Your task to perform on an android device: Open wifi settings Image 0: 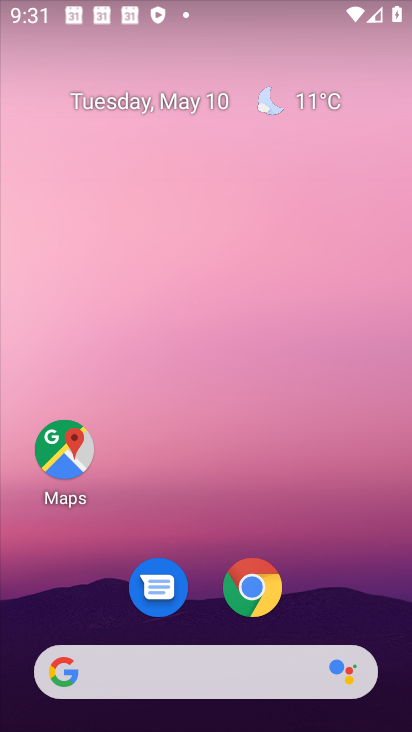
Step 0: drag from (385, 596) to (351, 249)
Your task to perform on an android device: Open wifi settings Image 1: 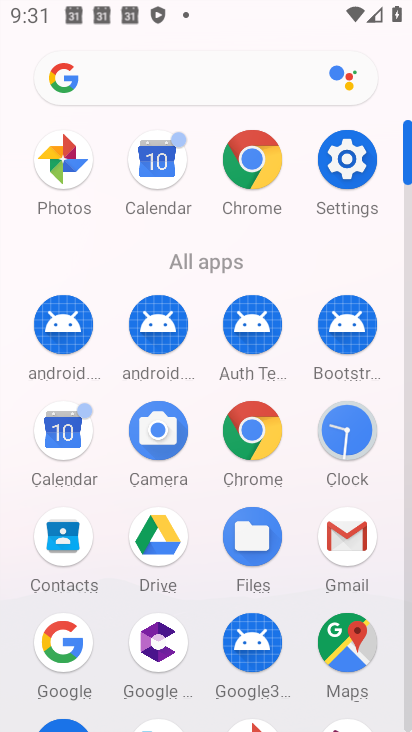
Step 1: click (340, 182)
Your task to perform on an android device: Open wifi settings Image 2: 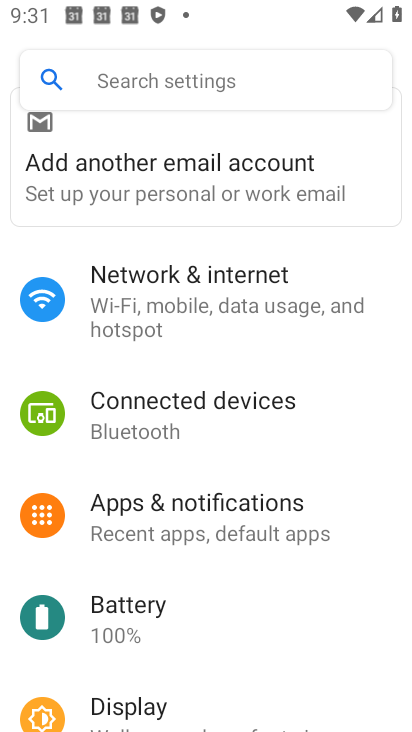
Step 2: click (191, 169)
Your task to perform on an android device: Open wifi settings Image 3: 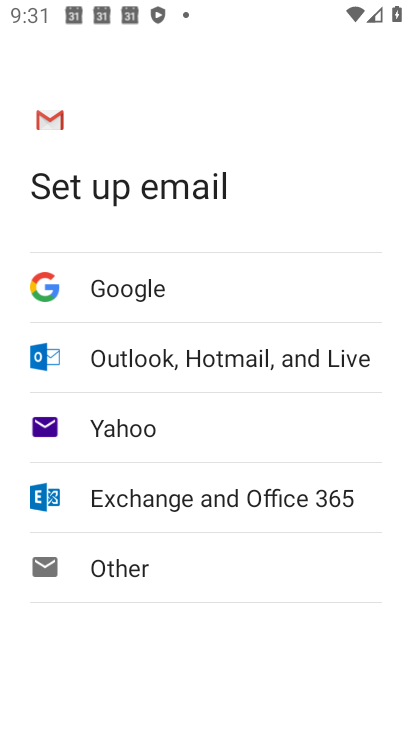
Step 3: press back button
Your task to perform on an android device: Open wifi settings Image 4: 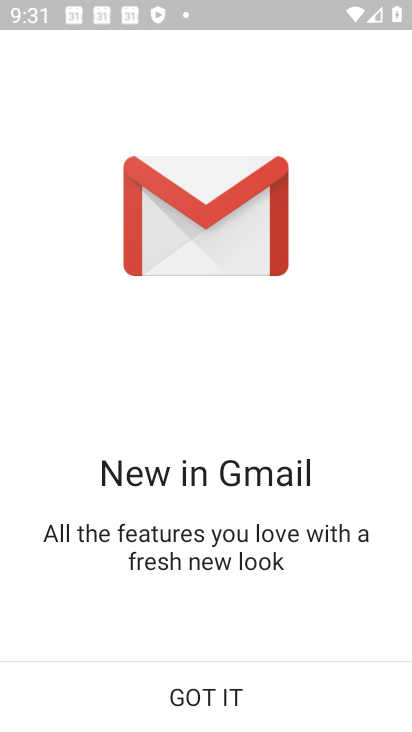
Step 4: click (230, 689)
Your task to perform on an android device: Open wifi settings Image 5: 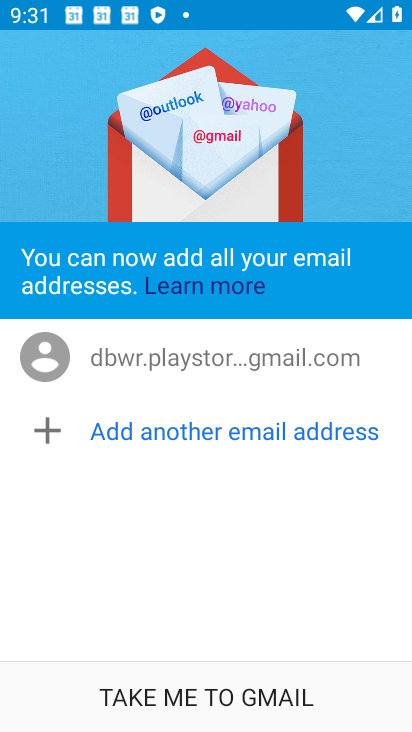
Step 5: click (262, 715)
Your task to perform on an android device: Open wifi settings Image 6: 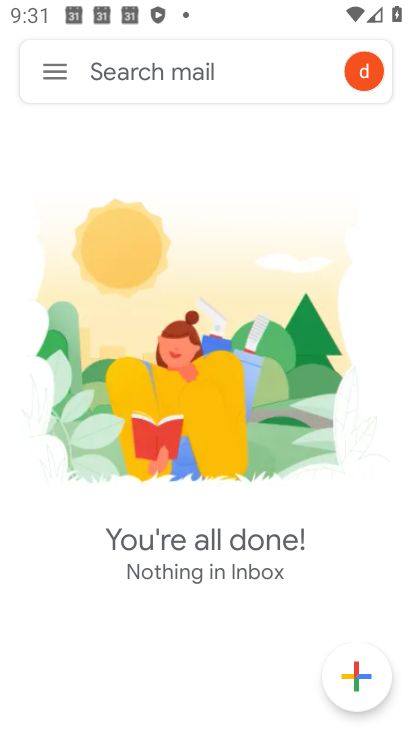
Step 6: press home button
Your task to perform on an android device: Open wifi settings Image 7: 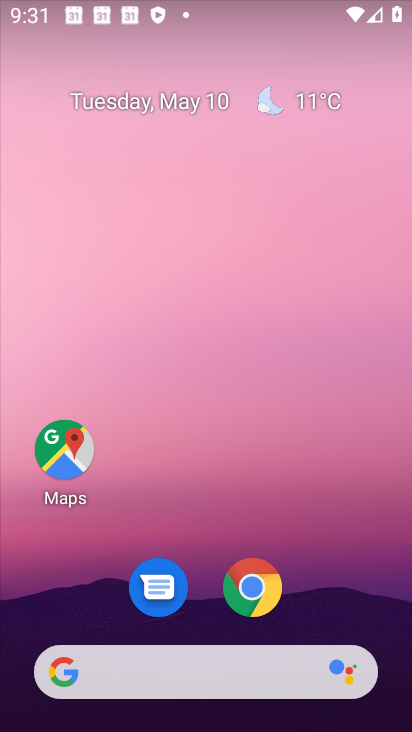
Step 7: drag from (381, 587) to (336, 217)
Your task to perform on an android device: Open wifi settings Image 8: 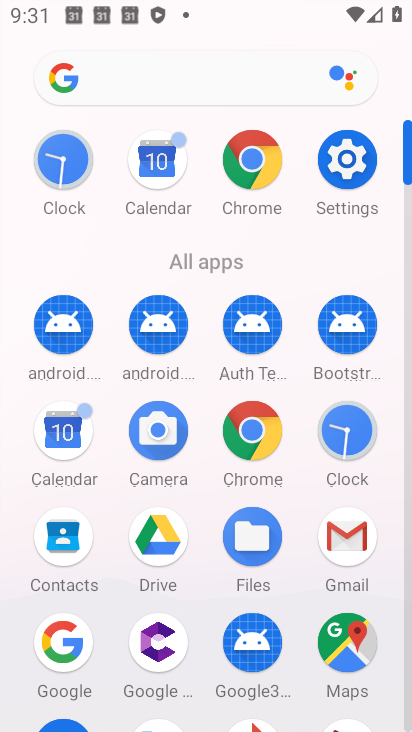
Step 8: click (352, 174)
Your task to perform on an android device: Open wifi settings Image 9: 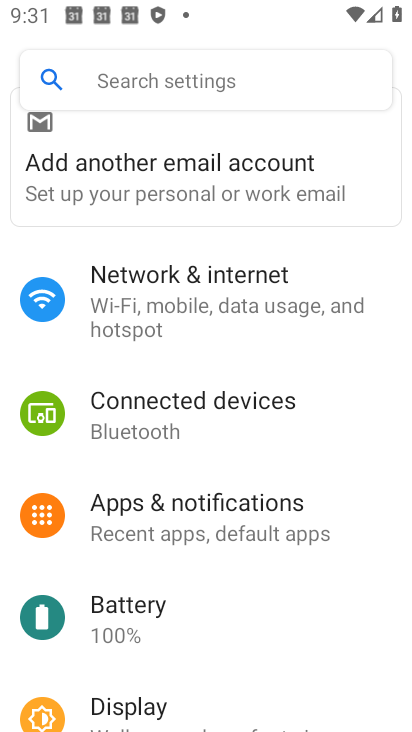
Step 9: click (257, 304)
Your task to perform on an android device: Open wifi settings Image 10: 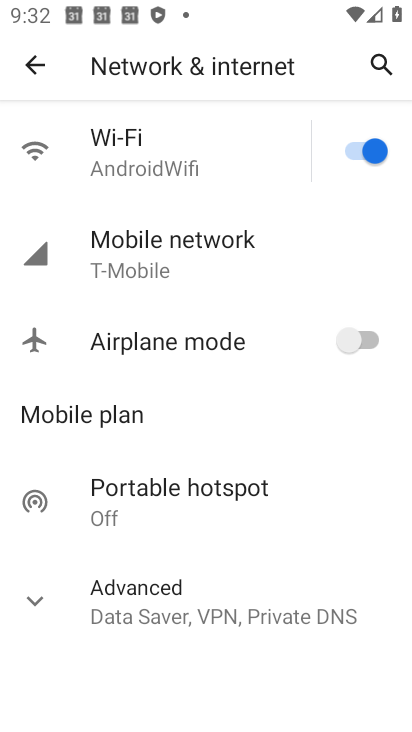
Step 10: click (191, 146)
Your task to perform on an android device: Open wifi settings Image 11: 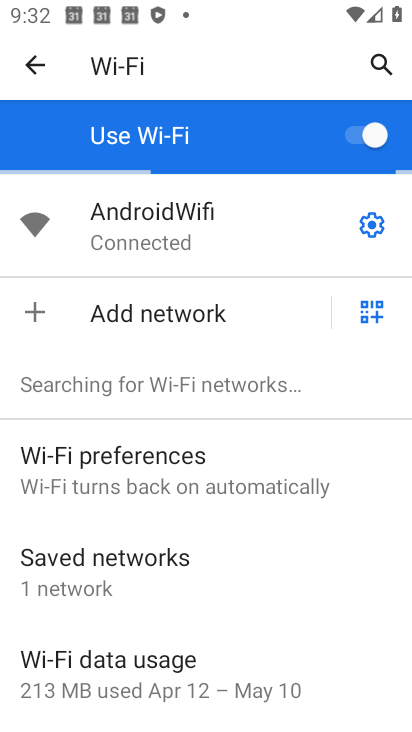
Step 11: task complete